Your task to perform on an android device: What's on my calendar today? Image 0: 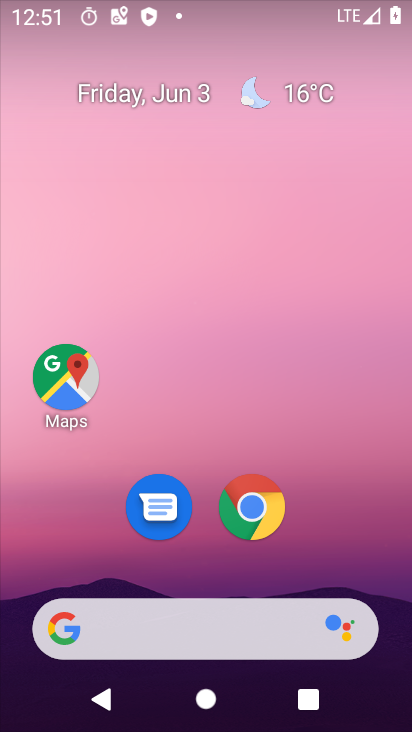
Step 0: drag from (388, 630) to (282, 43)
Your task to perform on an android device: What's on my calendar today? Image 1: 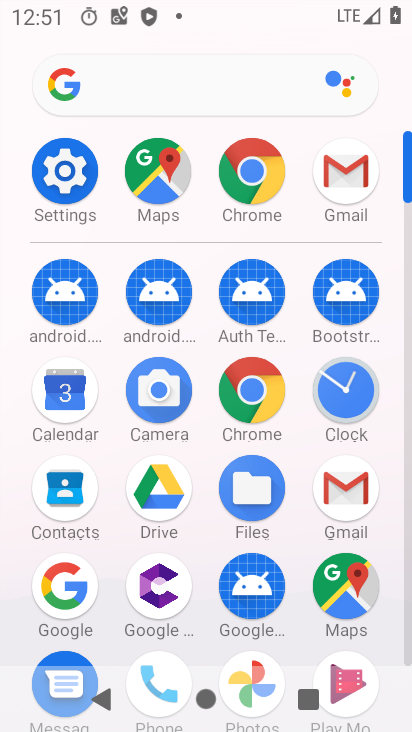
Step 1: click (64, 398)
Your task to perform on an android device: What's on my calendar today? Image 2: 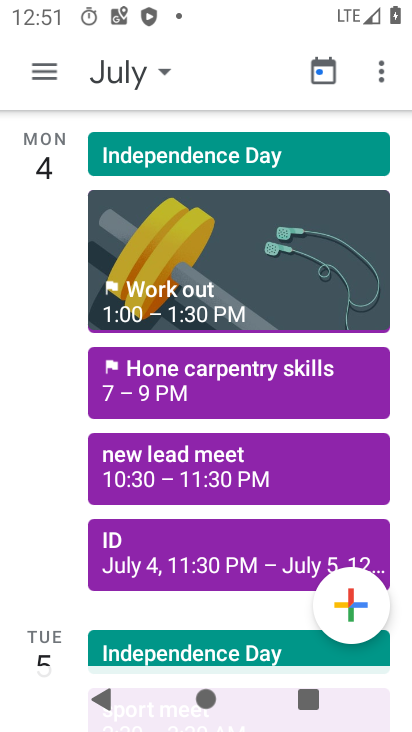
Step 2: click (114, 66)
Your task to perform on an android device: What's on my calendar today? Image 3: 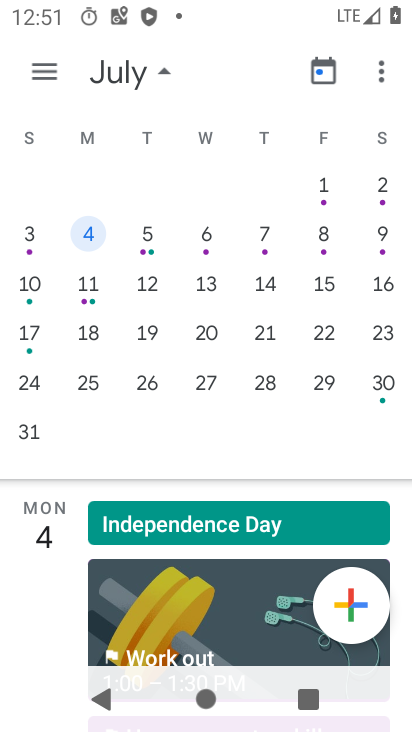
Step 3: drag from (59, 325) to (341, 326)
Your task to perform on an android device: What's on my calendar today? Image 4: 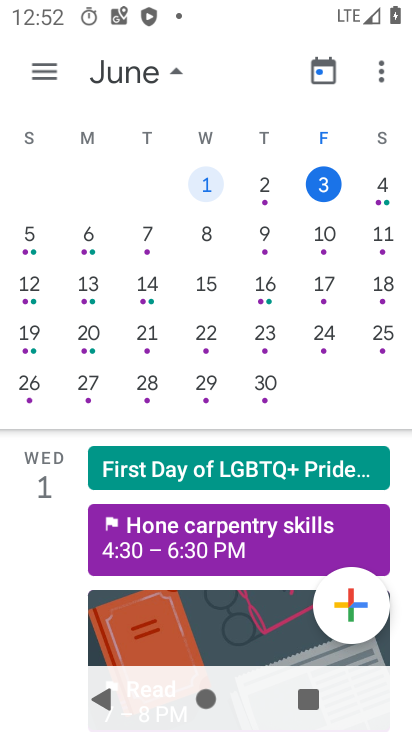
Step 4: click (332, 177)
Your task to perform on an android device: What's on my calendar today? Image 5: 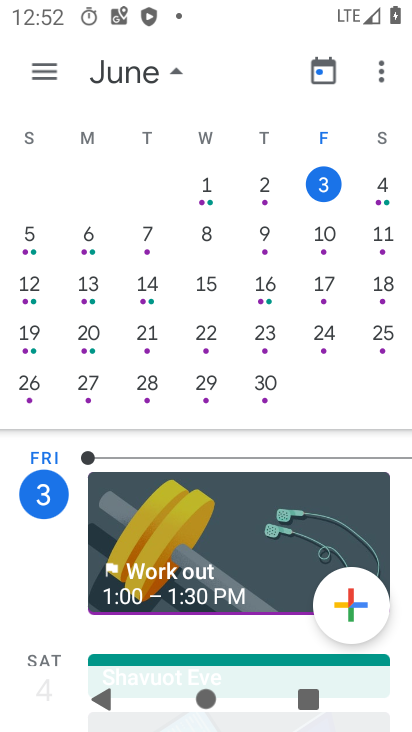
Step 5: click (242, 521)
Your task to perform on an android device: What's on my calendar today? Image 6: 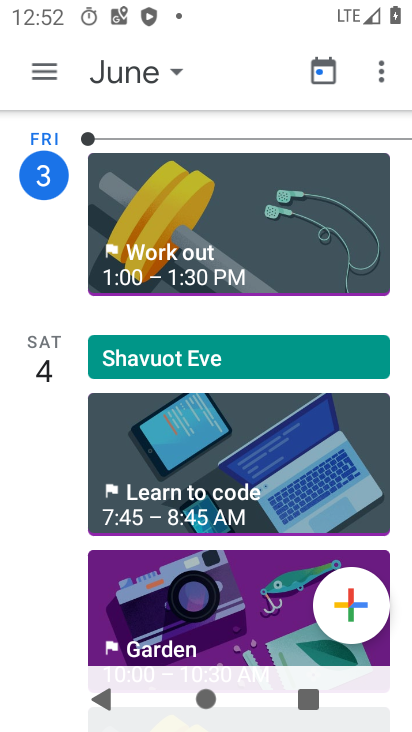
Step 6: click (239, 257)
Your task to perform on an android device: What's on my calendar today? Image 7: 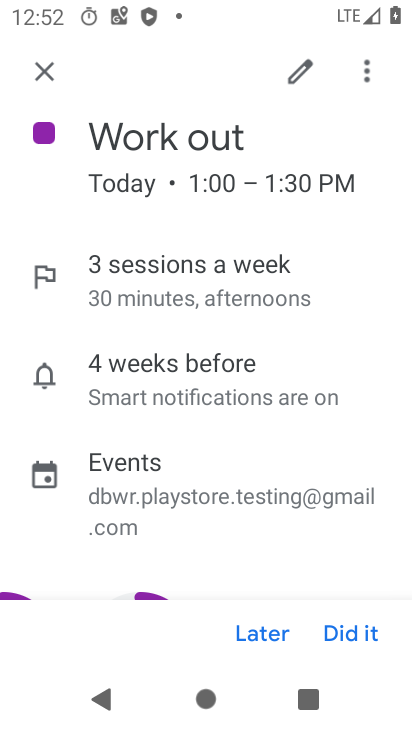
Step 7: task complete